Your task to perform on an android device: View the shopping cart on costco.com. Search for "usb-a" on costco.com, select the first entry, and add it to the cart. Image 0: 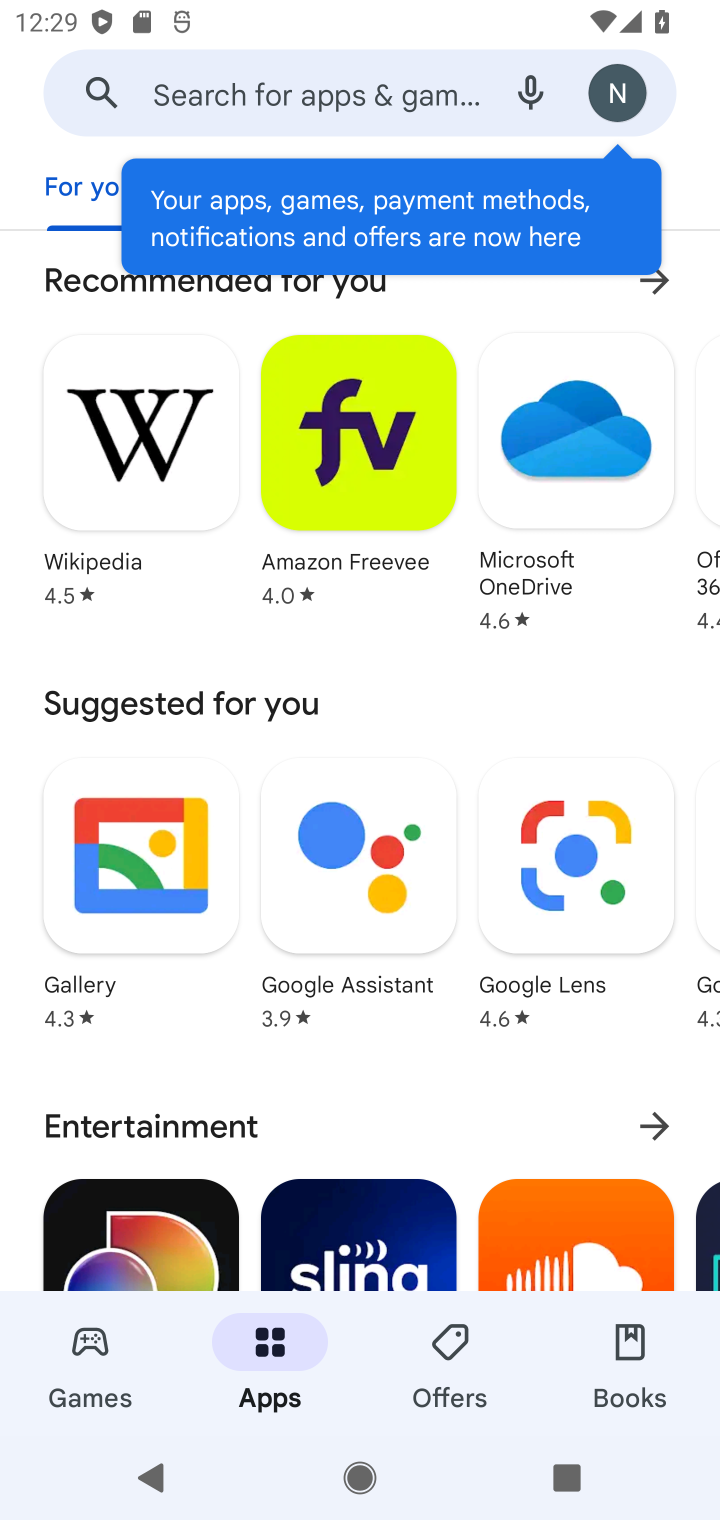
Step 0: press home button
Your task to perform on an android device: View the shopping cart on costco.com. Search for "usb-a" on costco.com, select the first entry, and add it to the cart. Image 1: 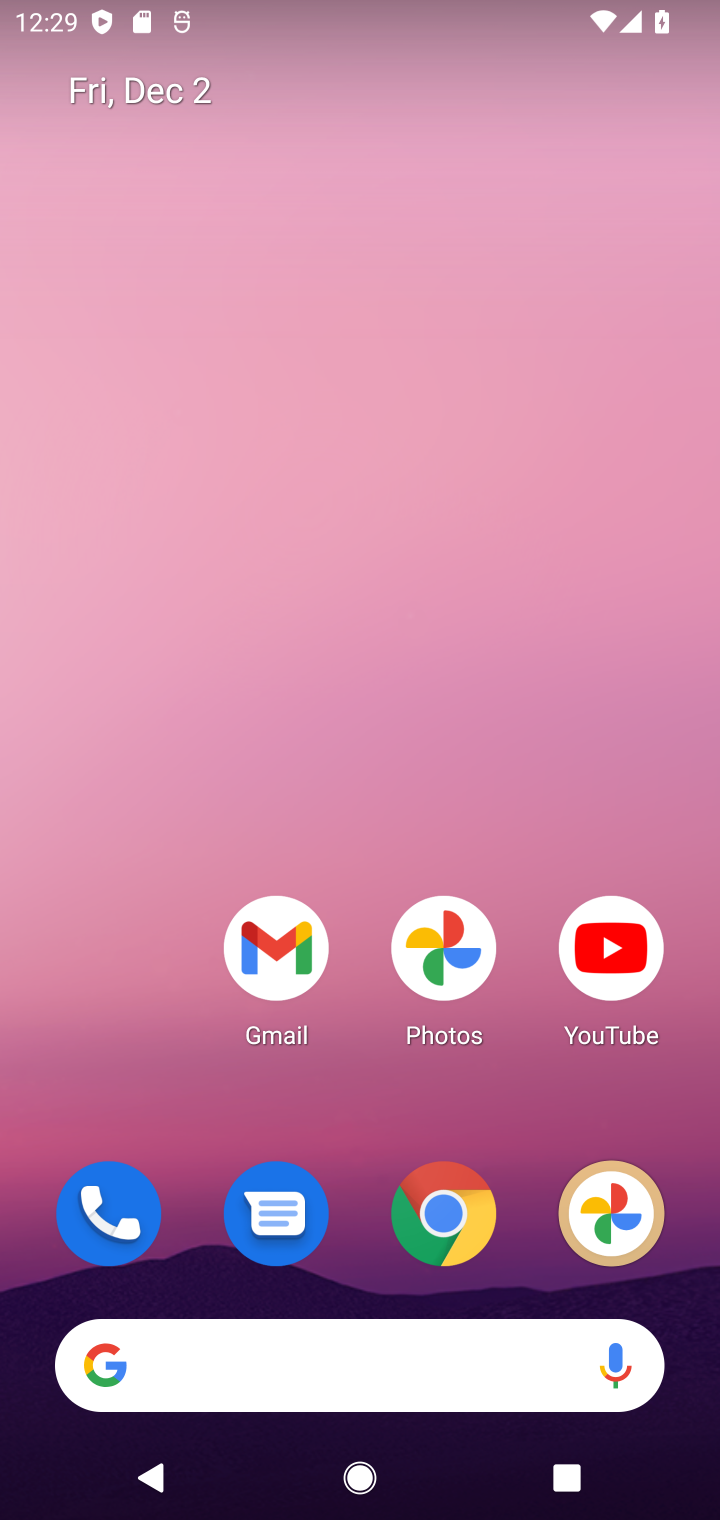
Step 1: drag from (353, 1152) to (409, 122)
Your task to perform on an android device: View the shopping cart on costco.com. Search for "usb-a" on costco.com, select the first entry, and add it to the cart. Image 2: 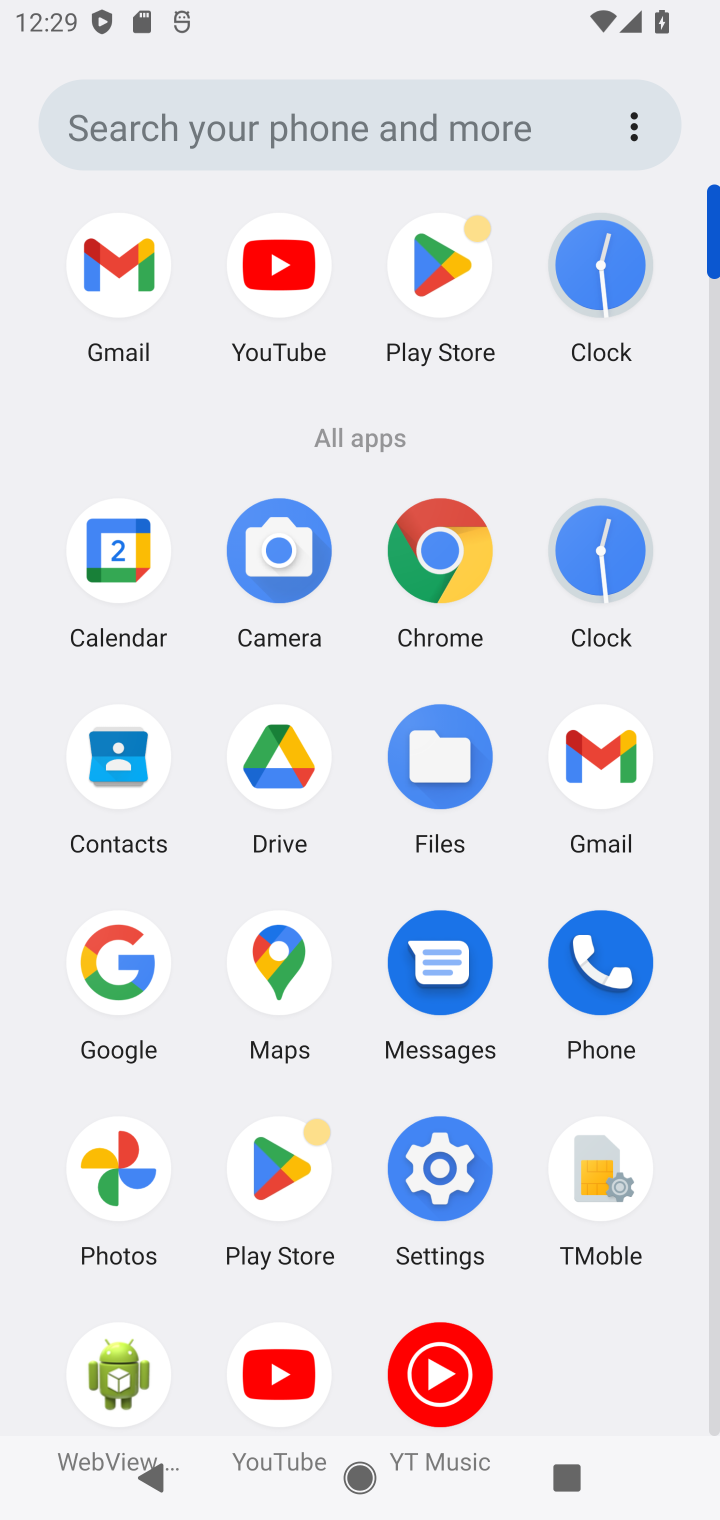
Step 2: click (104, 970)
Your task to perform on an android device: View the shopping cart on costco.com. Search for "usb-a" on costco.com, select the first entry, and add it to the cart. Image 3: 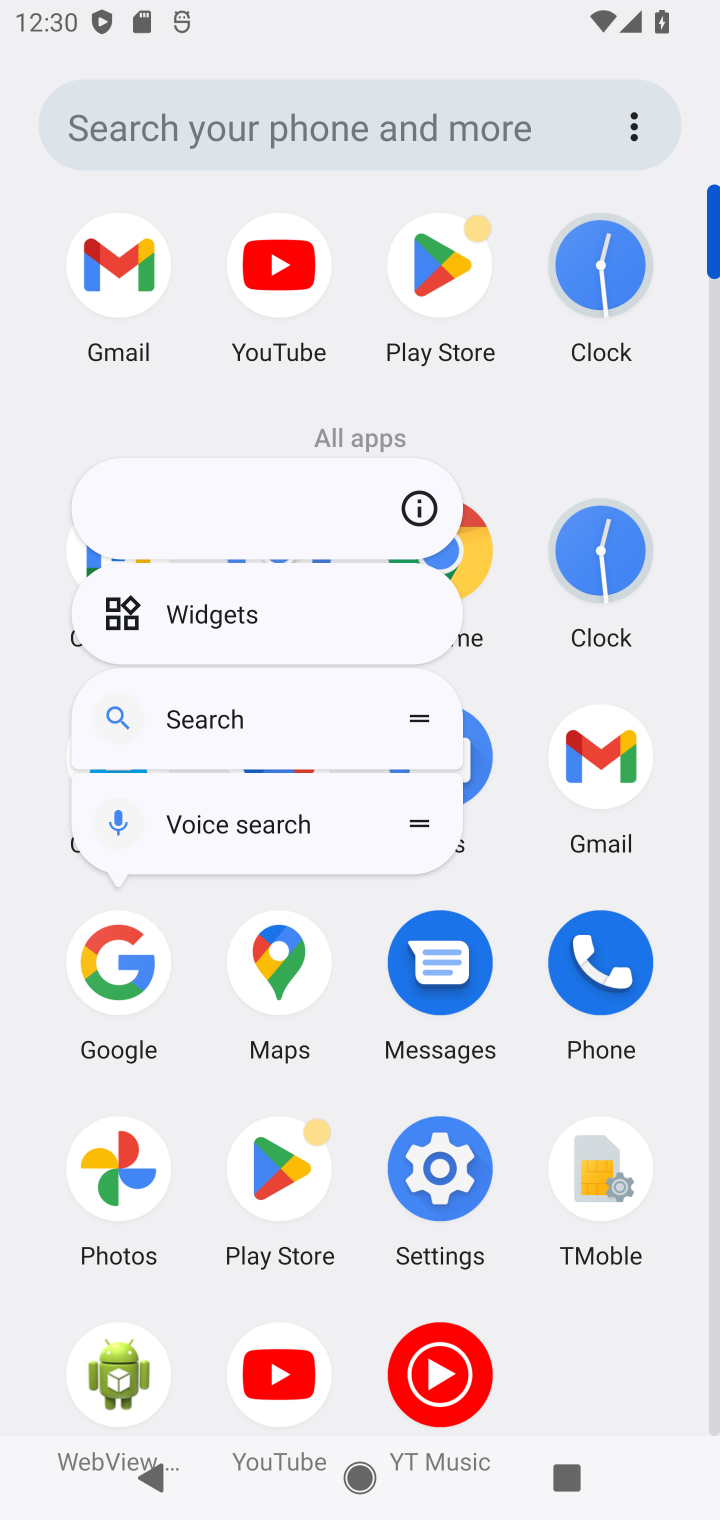
Step 3: click (148, 962)
Your task to perform on an android device: View the shopping cart on costco.com. Search for "usb-a" on costco.com, select the first entry, and add it to the cart. Image 4: 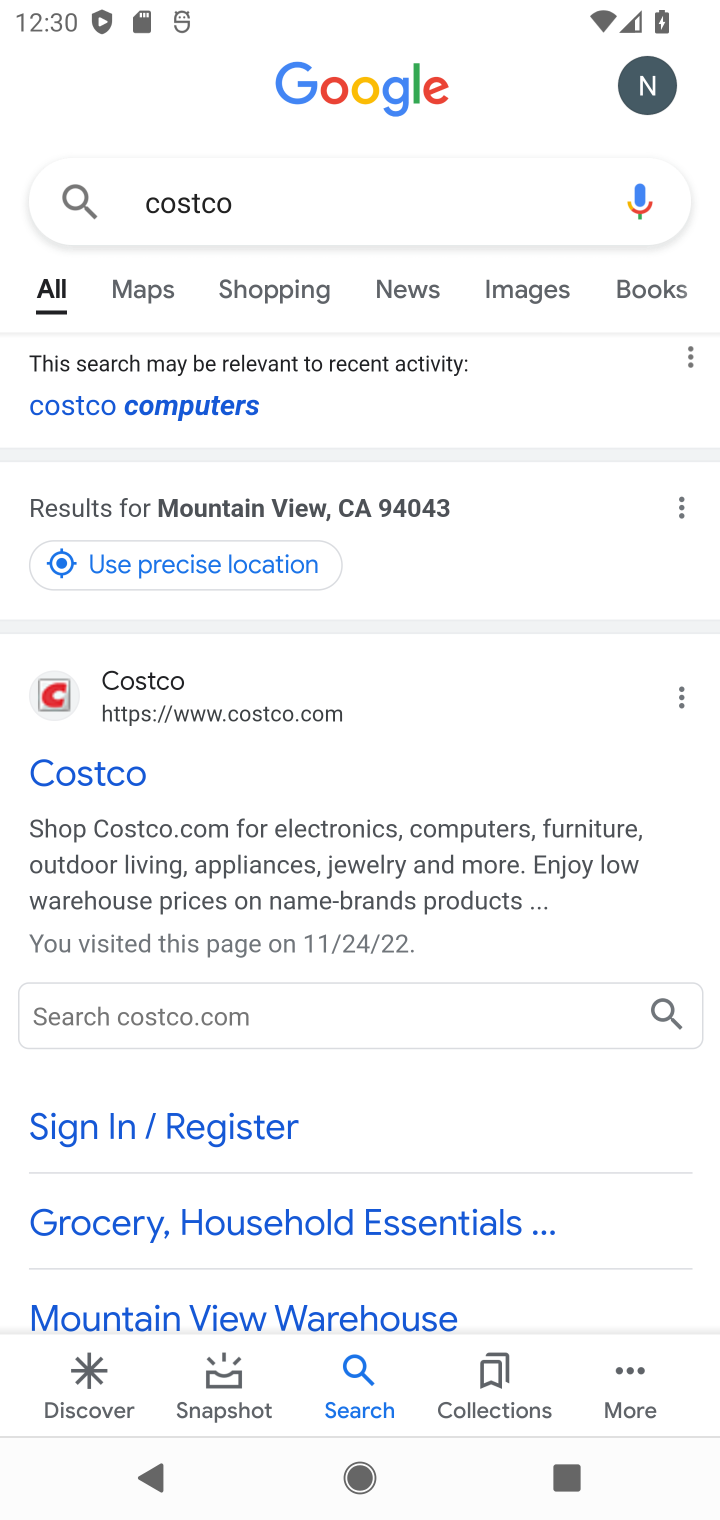
Step 4: click (319, 198)
Your task to perform on an android device: View the shopping cart on costco.com. Search for "usb-a" on costco.com, select the first entry, and add it to the cart. Image 5: 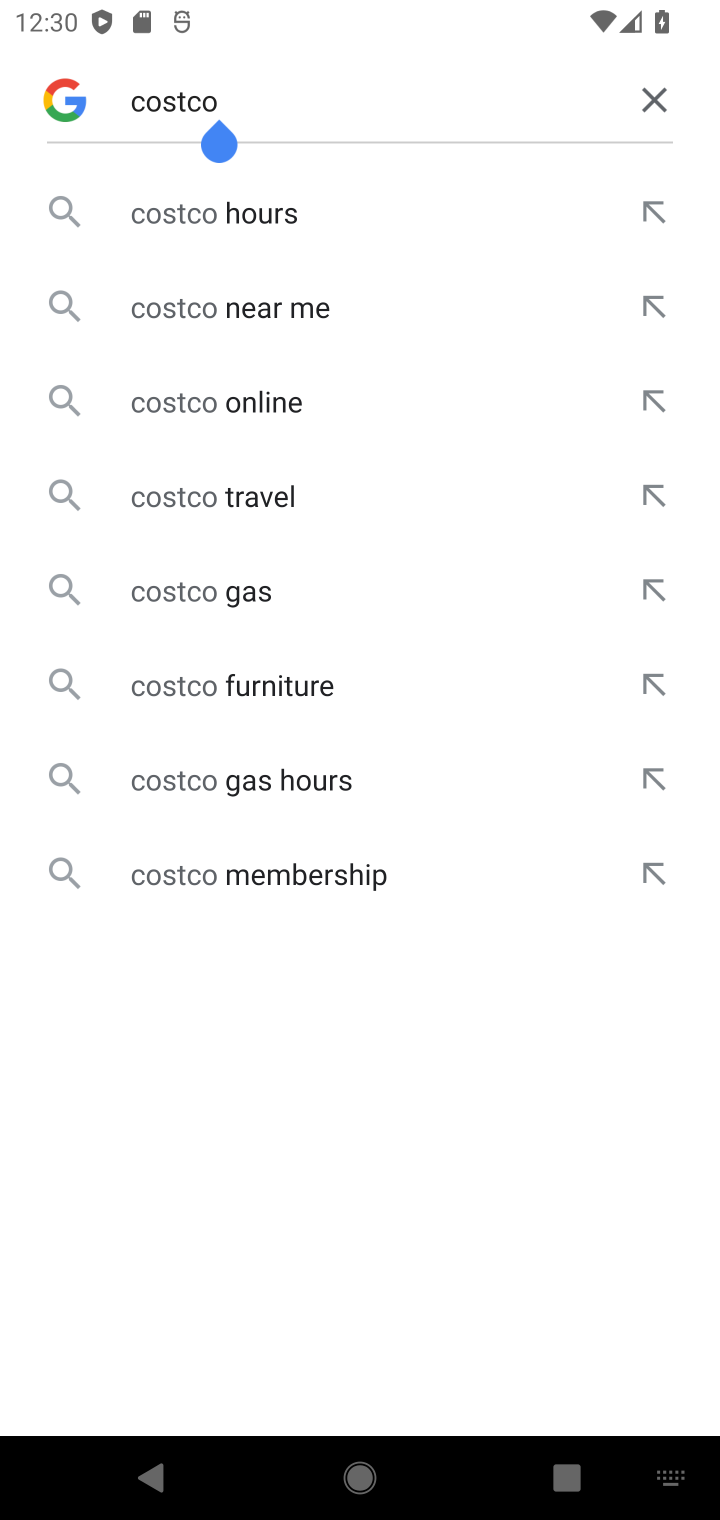
Step 5: click (660, 103)
Your task to perform on an android device: View the shopping cart on costco.com. Search for "usb-a" on costco.com, select the first entry, and add it to the cart. Image 6: 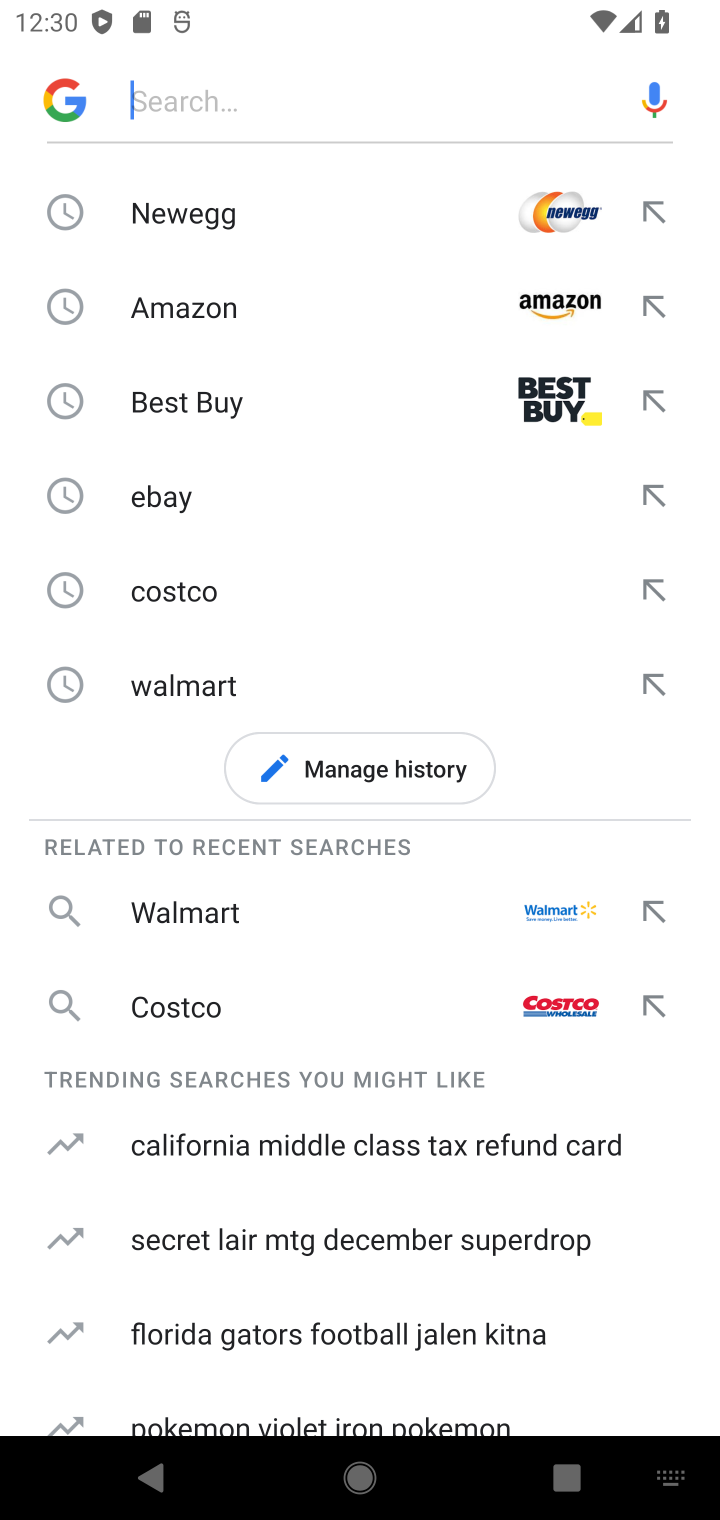
Step 6: click (183, 598)
Your task to perform on an android device: View the shopping cart on costco.com. Search for "usb-a" on costco.com, select the first entry, and add it to the cart. Image 7: 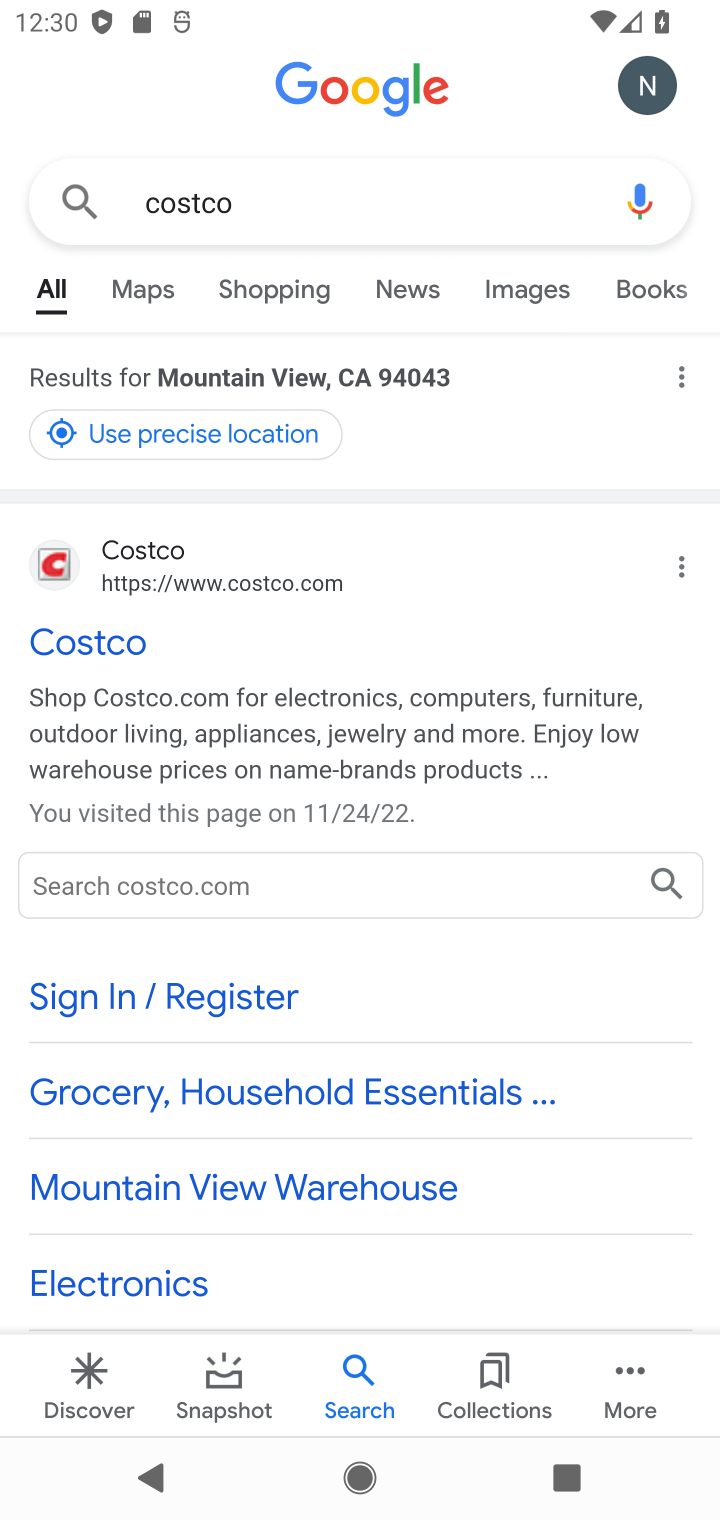
Step 7: click (64, 634)
Your task to perform on an android device: View the shopping cart on costco.com. Search for "usb-a" on costco.com, select the first entry, and add it to the cart. Image 8: 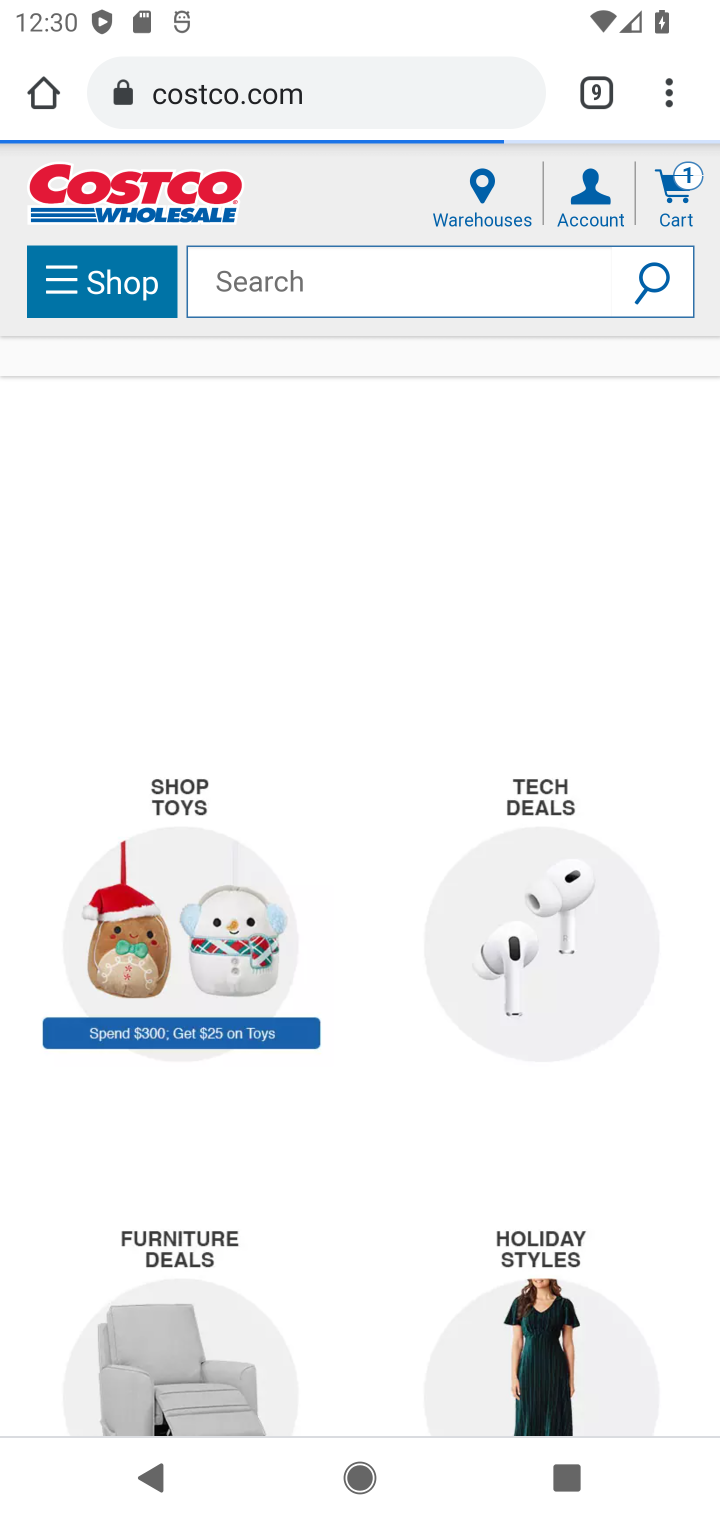
Step 8: click (313, 289)
Your task to perform on an android device: View the shopping cart on costco.com. Search for "usb-a" on costco.com, select the first entry, and add it to the cart. Image 9: 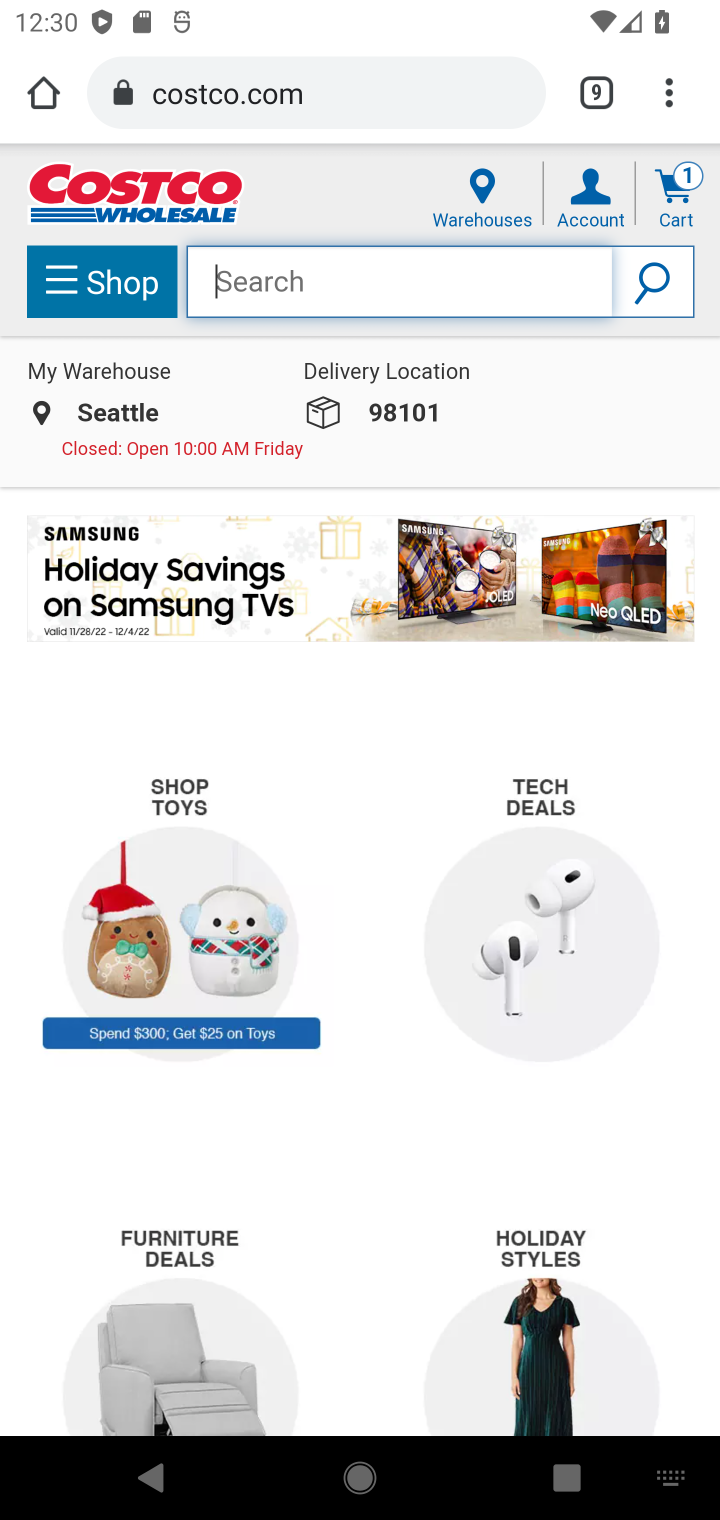
Step 9: type "usb-a"
Your task to perform on an android device: View the shopping cart on costco.com. Search for "usb-a" on costco.com, select the first entry, and add it to the cart. Image 10: 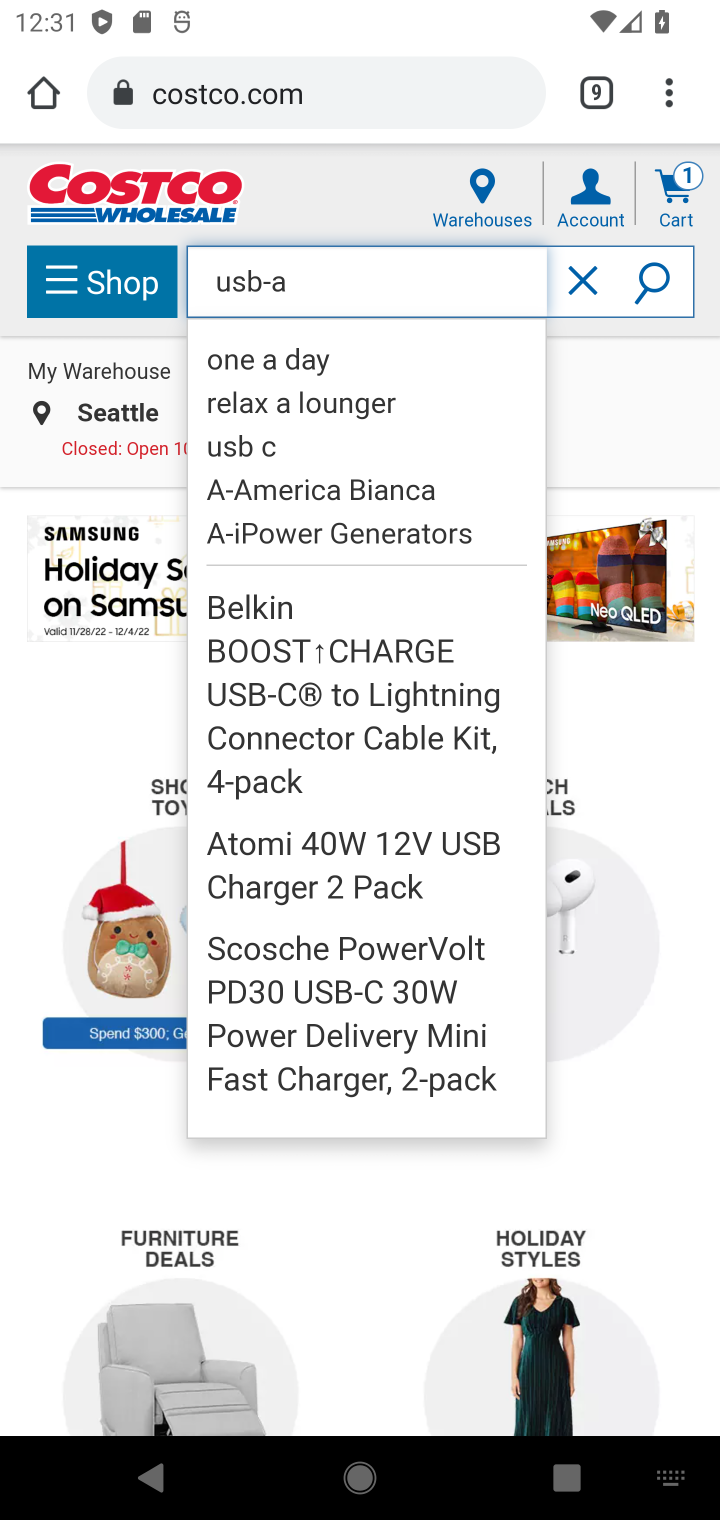
Step 10: click (651, 282)
Your task to perform on an android device: View the shopping cart on costco.com. Search for "usb-a" on costco.com, select the first entry, and add it to the cart. Image 11: 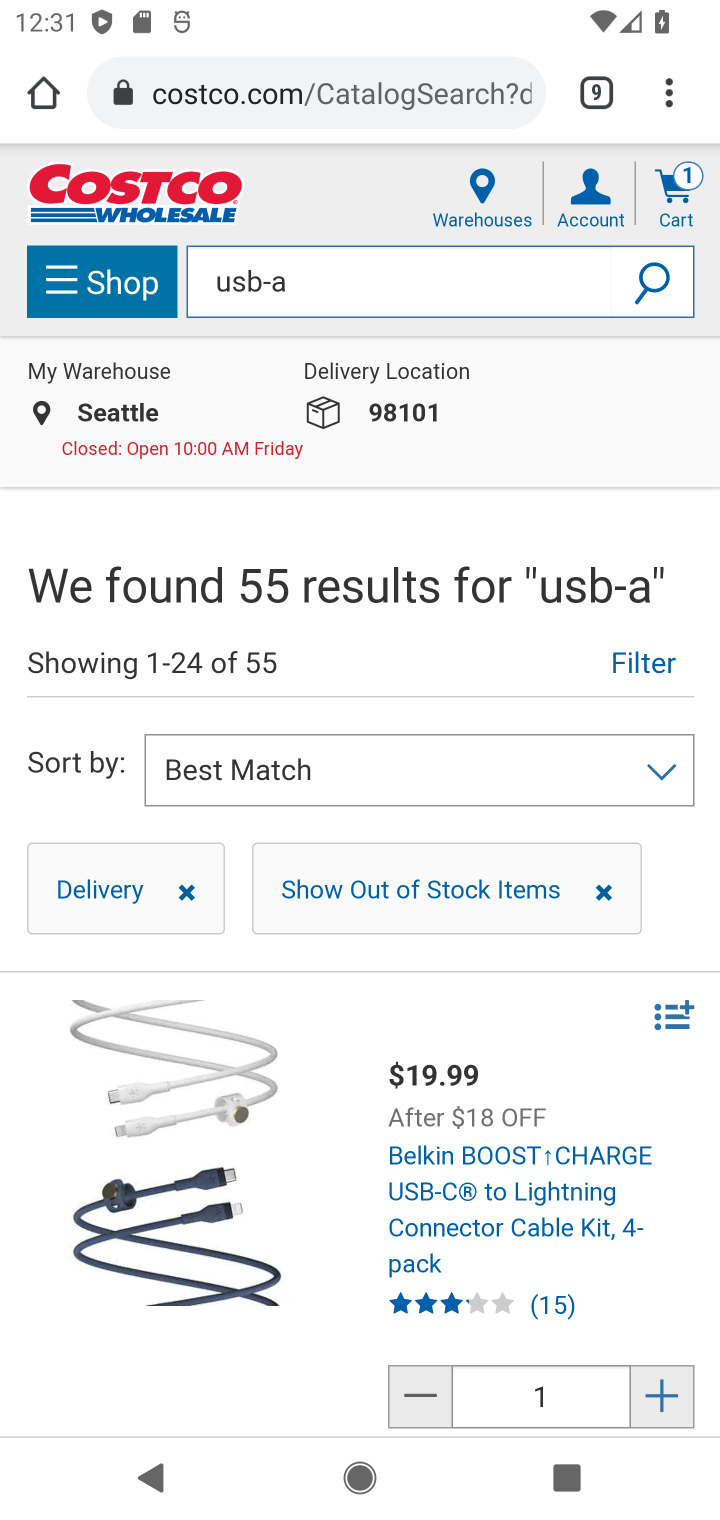
Step 11: drag from (513, 1115) to (514, 738)
Your task to perform on an android device: View the shopping cart on costco.com. Search for "usb-a" on costco.com, select the first entry, and add it to the cart. Image 12: 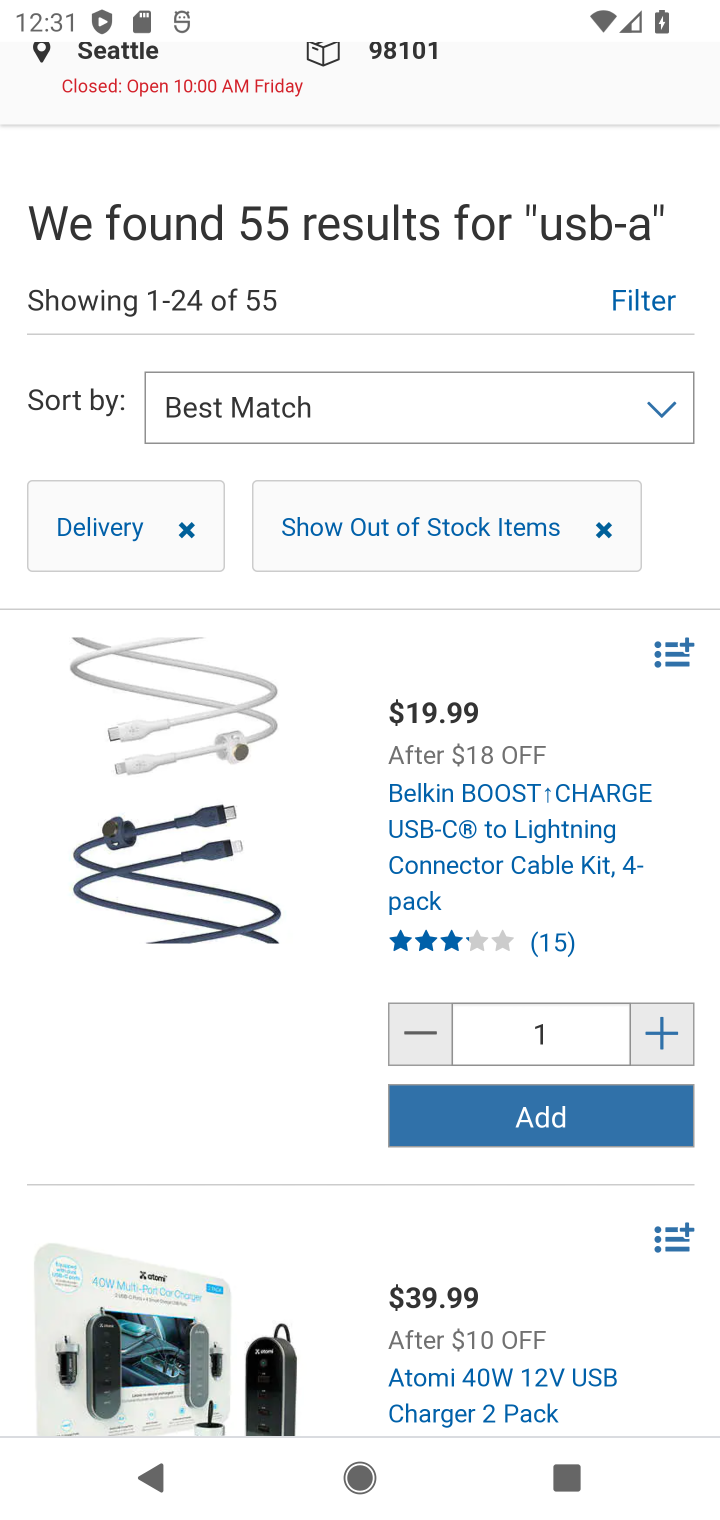
Step 12: click (584, 1135)
Your task to perform on an android device: View the shopping cart on costco.com. Search for "usb-a" on costco.com, select the first entry, and add it to the cart. Image 13: 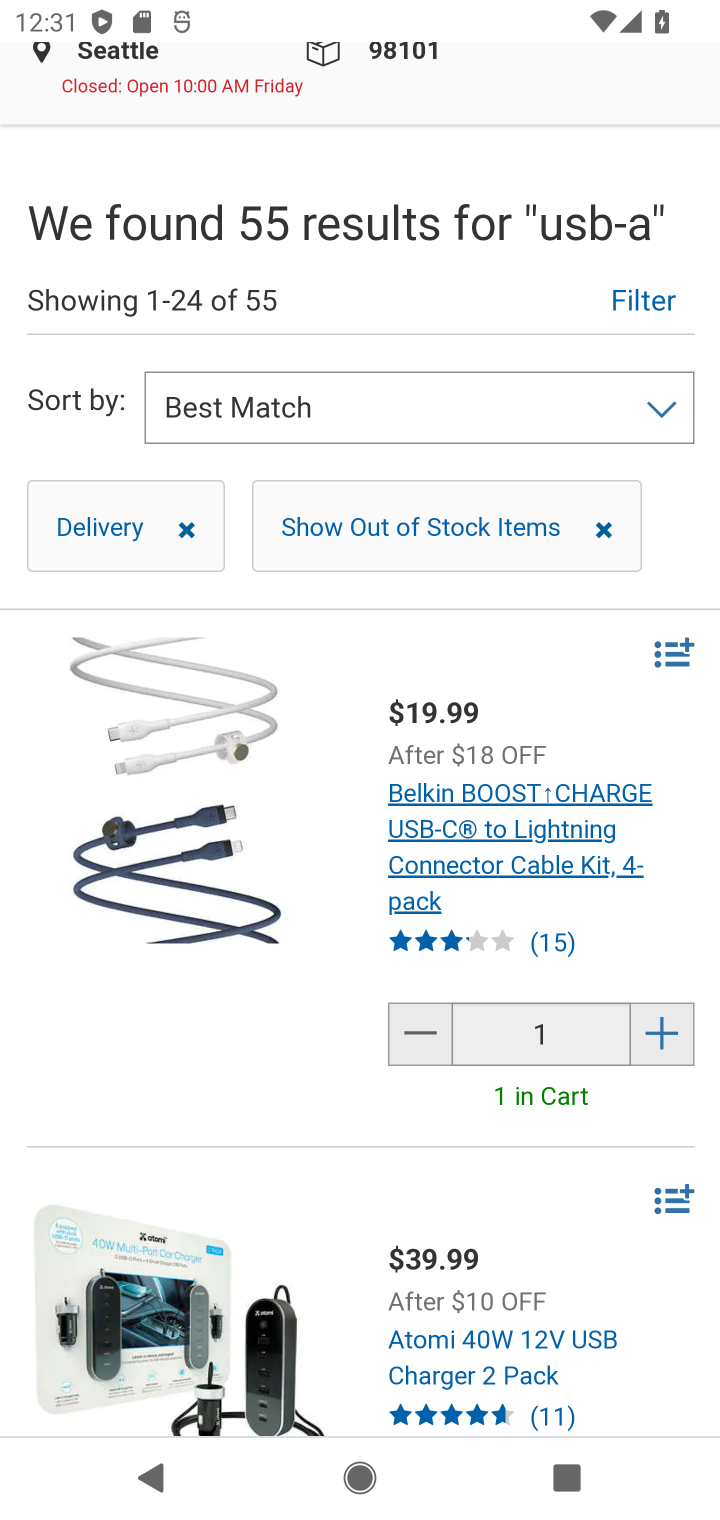
Step 13: drag from (493, 650) to (564, 1130)
Your task to perform on an android device: View the shopping cart on costco.com. Search for "usb-a" on costco.com, select the first entry, and add it to the cart. Image 14: 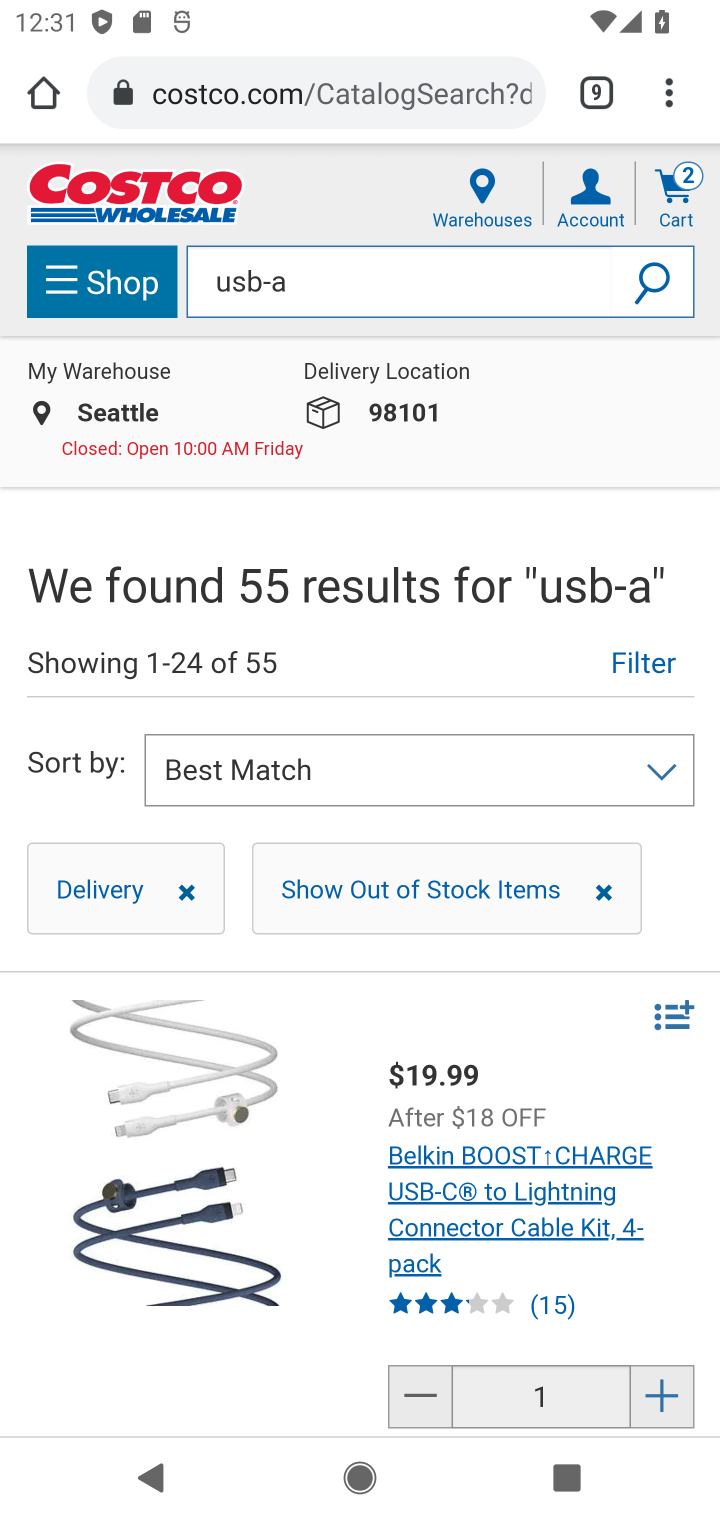
Step 14: click (666, 187)
Your task to perform on an android device: View the shopping cart on costco.com. Search for "usb-a" on costco.com, select the first entry, and add it to the cart. Image 15: 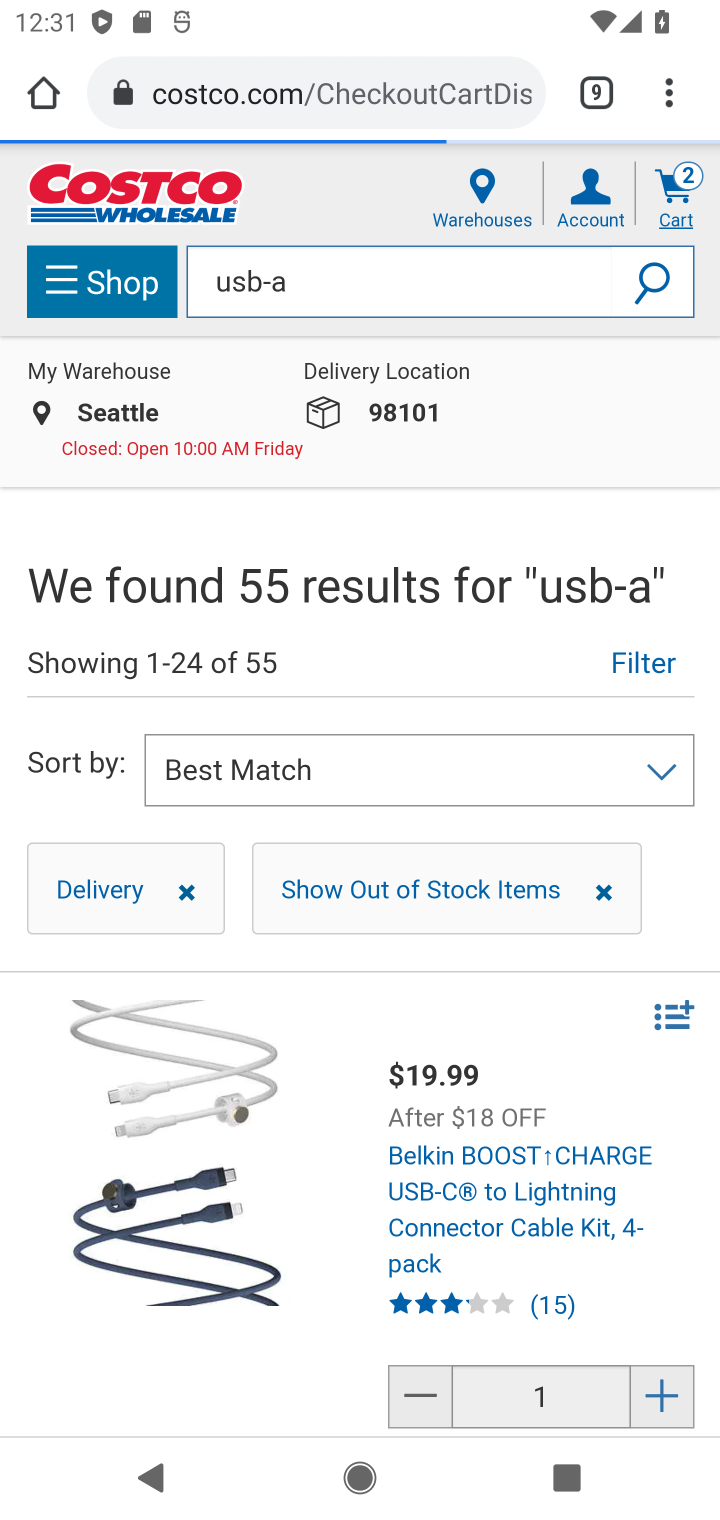
Step 15: click (685, 166)
Your task to perform on an android device: View the shopping cart on costco.com. Search for "usb-a" on costco.com, select the first entry, and add it to the cart. Image 16: 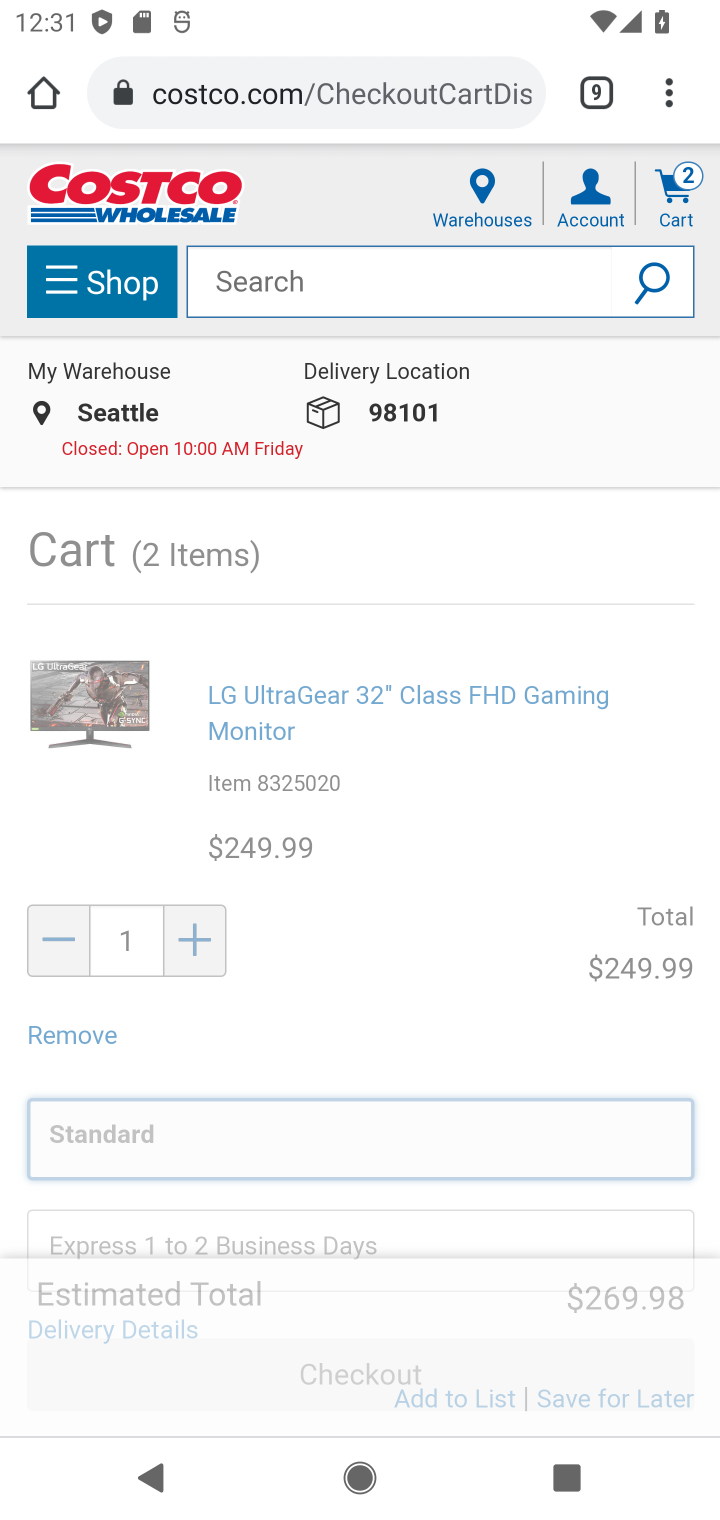
Step 16: task complete